Your task to perform on an android device: allow notifications from all sites in the chrome app Image 0: 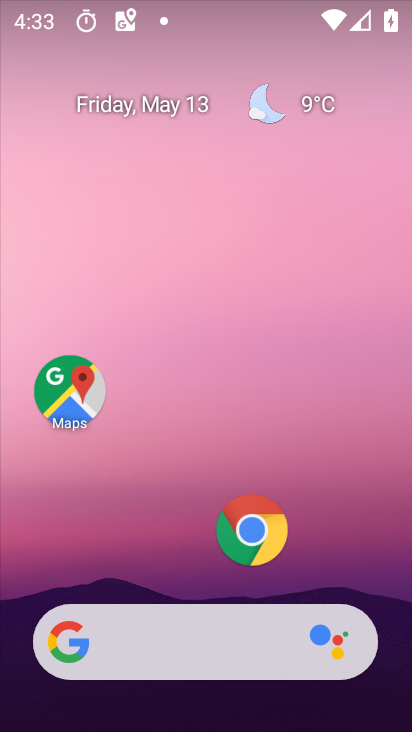
Step 0: click (253, 521)
Your task to perform on an android device: allow notifications from all sites in the chrome app Image 1: 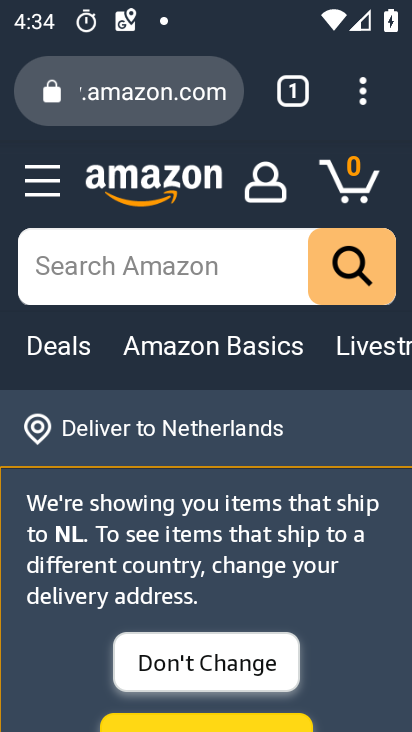
Step 1: click (368, 84)
Your task to perform on an android device: allow notifications from all sites in the chrome app Image 2: 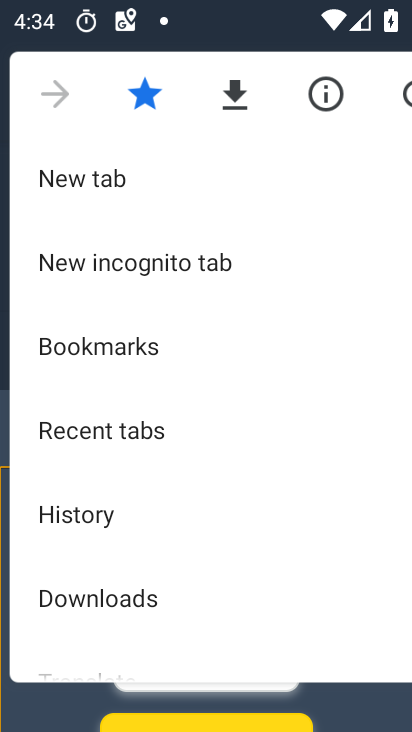
Step 2: drag from (171, 564) to (200, 68)
Your task to perform on an android device: allow notifications from all sites in the chrome app Image 3: 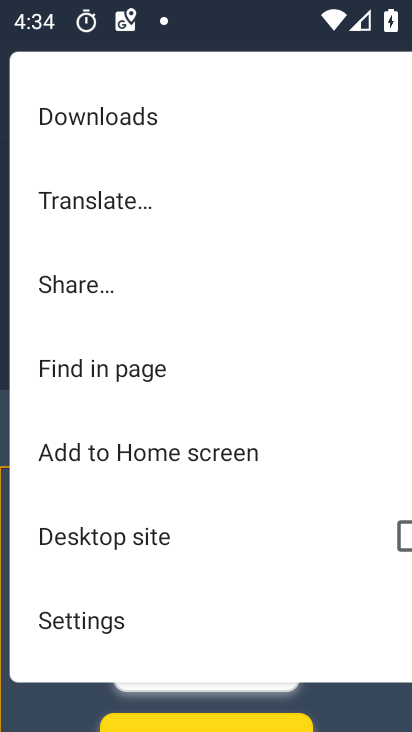
Step 3: click (135, 633)
Your task to perform on an android device: allow notifications from all sites in the chrome app Image 4: 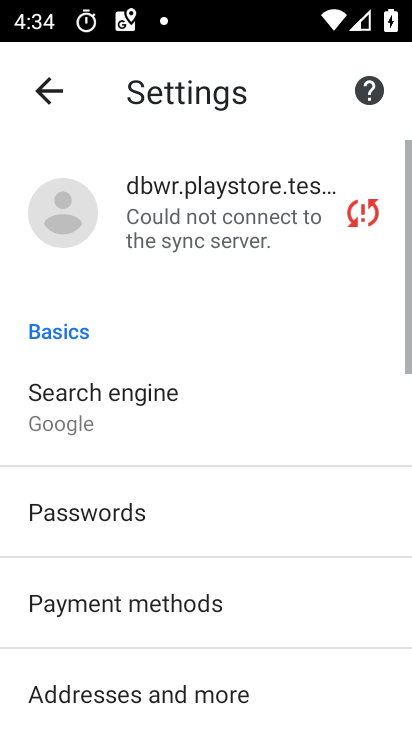
Step 4: drag from (207, 586) to (246, 50)
Your task to perform on an android device: allow notifications from all sites in the chrome app Image 5: 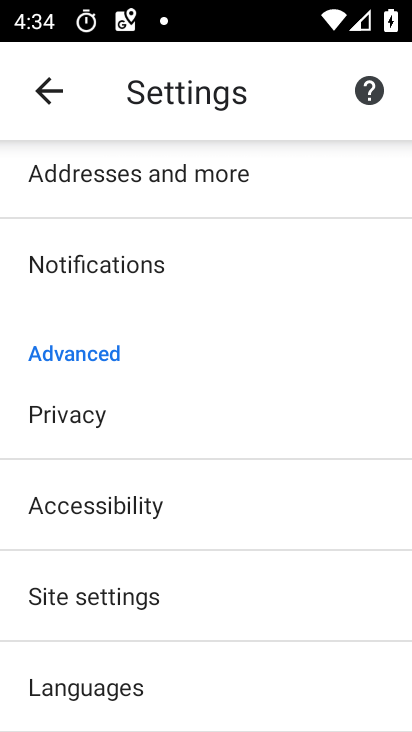
Step 5: click (178, 245)
Your task to perform on an android device: allow notifications from all sites in the chrome app Image 6: 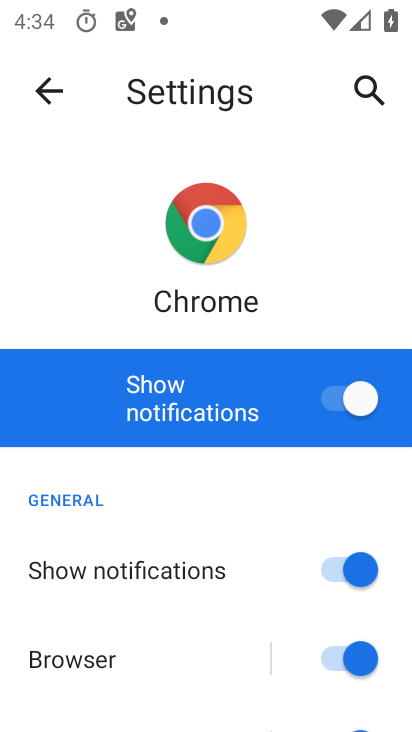
Step 6: task complete